Your task to perform on an android device: What's the weather? Image 0: 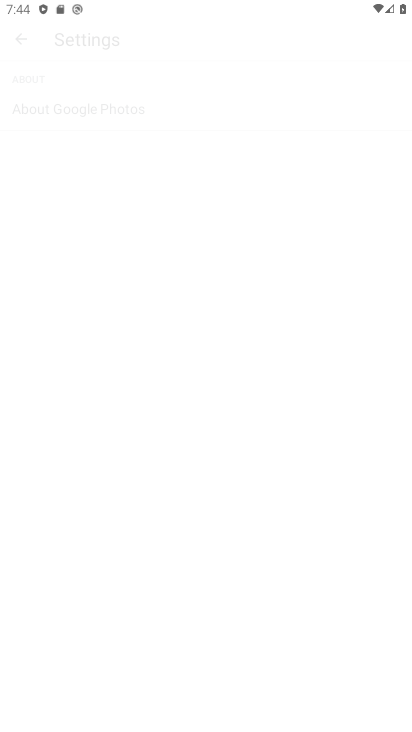
Step 0: drag from (177, 676) to (260, 144)
Your task to perform on an android device: What's the weather? Image 1: 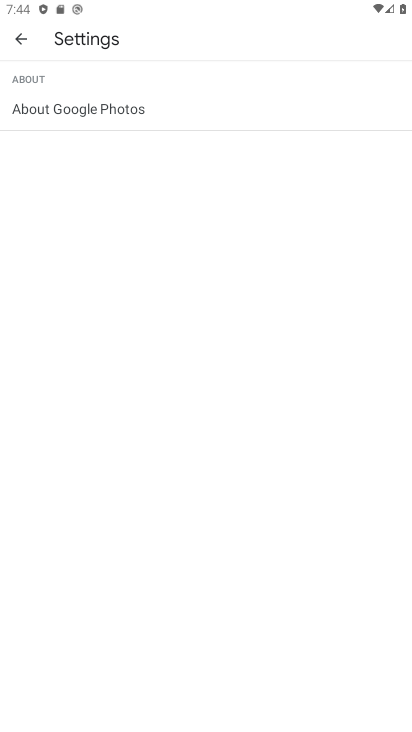
Step 1: press home button
Your task to perform on an android device: What's the weather? Image 2: 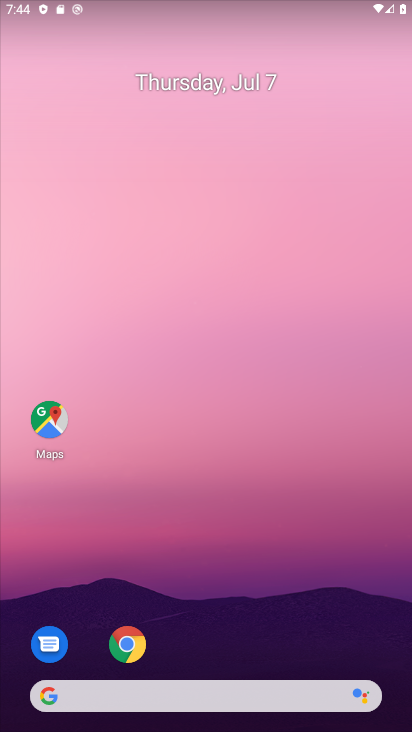
Step 2: drag from (187, 657) to (292, 87)
Your task to perform on an android device: What's the weather? Image 3: 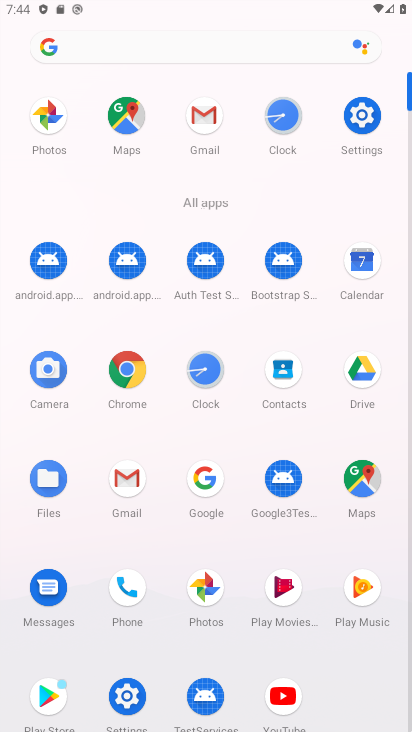
Step 3: click (140, 366)
Your task to perform on an android device: What's the weather? Image 4: 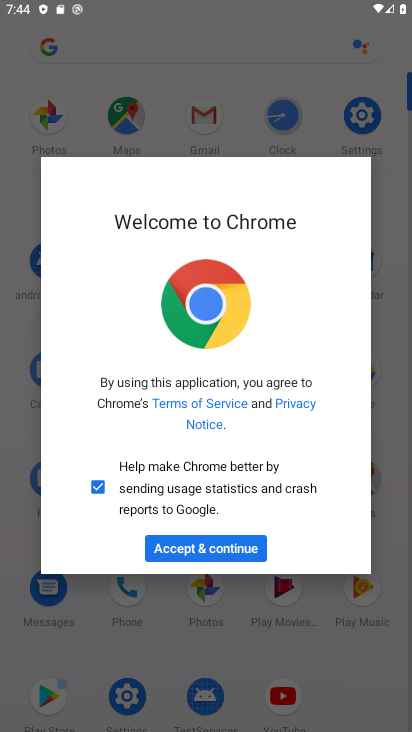
Step 4: click (250, 554)
Your task to perform on an android device: What's the weather? Image 5: 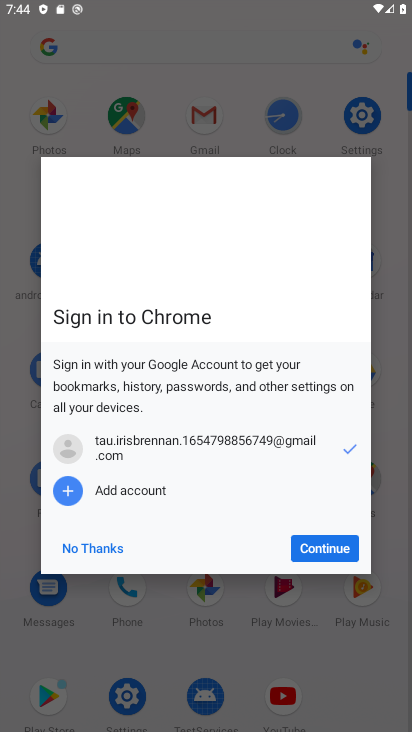
Step 5: click (309, 558)
Your task to perform on an android device: What's the weather? Image 6: 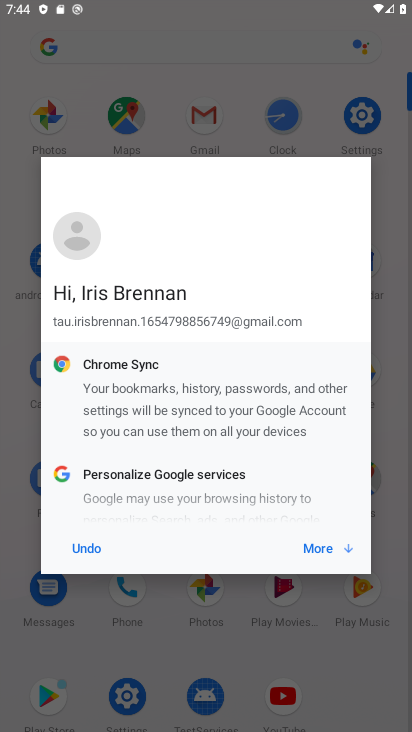
Step 6: click (314, 544)
Your task to perform on an android device: What's the weather? Image 7: 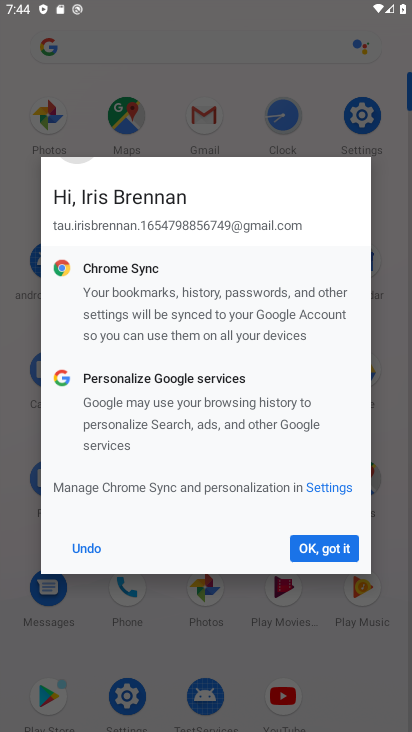
Step 7: click (314, 544)
Your task to perform on an android device: What's the weather? Image 8: 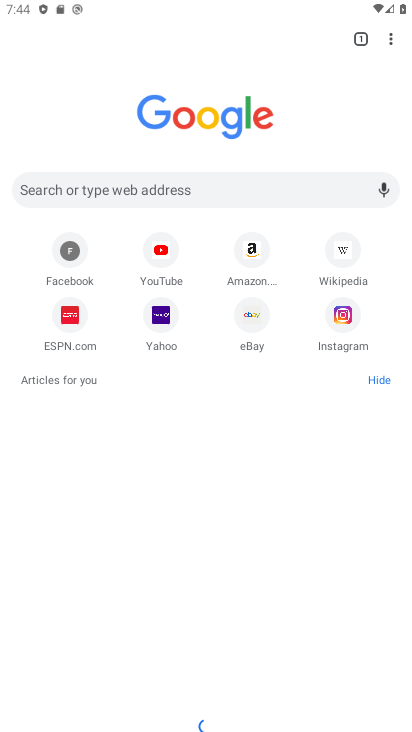
Step 8: click (159, 189)
Your task to perform on an android device: What's the weather? Image 9: 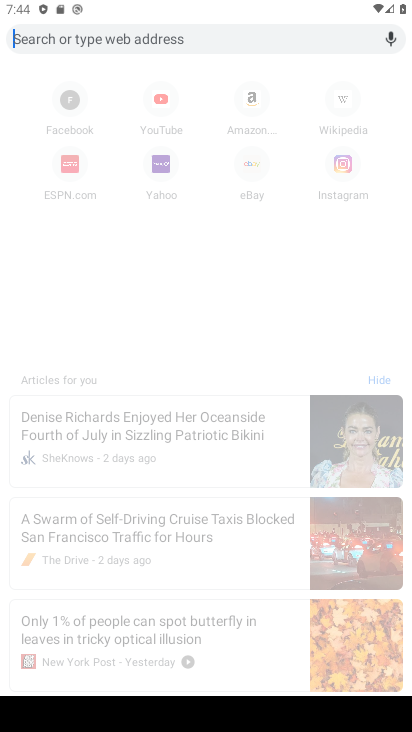
Step 9: type "What's the weather?"
Your task to perform on an android device: What's the weather? Image 10: 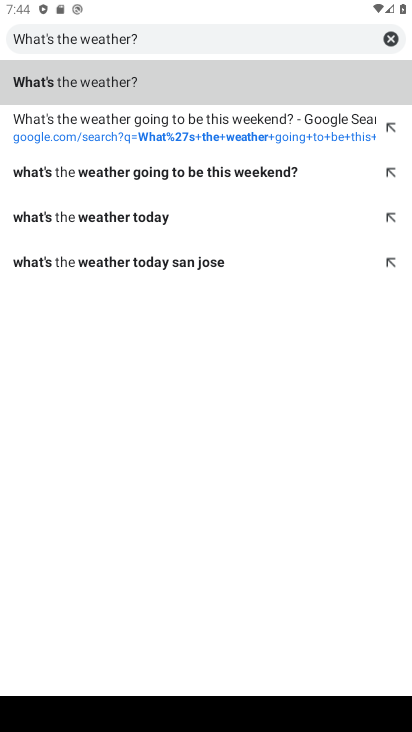
Step 10: click (204, 77)
Your task to perform on an android device: What's the weather? Image 11: 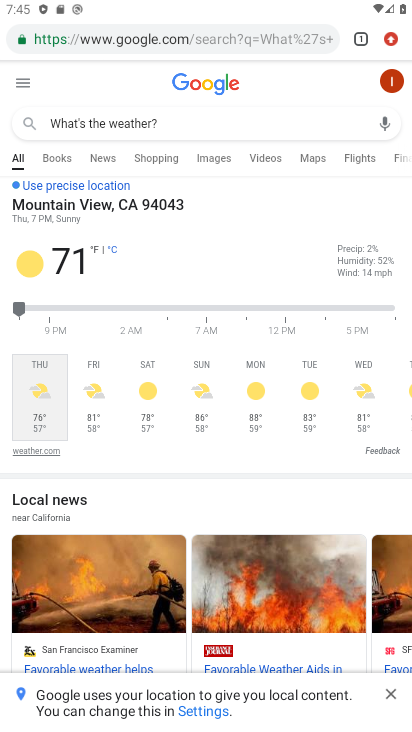
Step 11: task complete